Your task to perform on an android device: all mails in gmail Image 0: 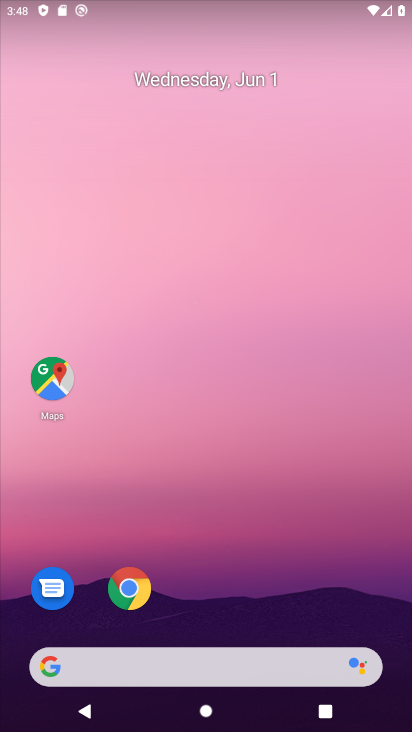
Step 0: drag from (259, 591) to (260, 150)
Your task to perform on an android device: all mails in gmail Image 1: 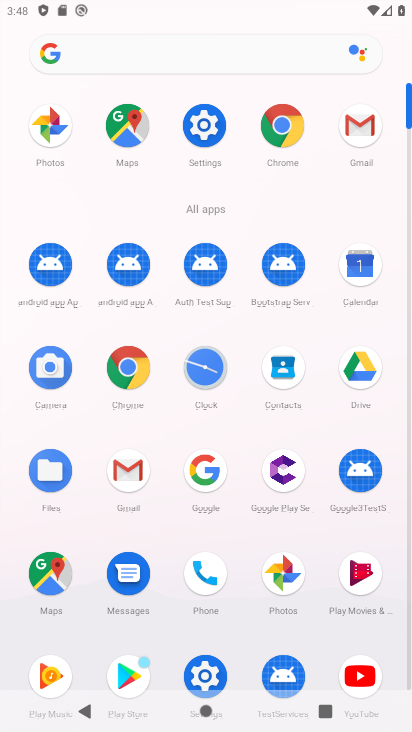
Step 1: click (371, 146)
Your task to perform on an android device: all mails in gmail Image 2: 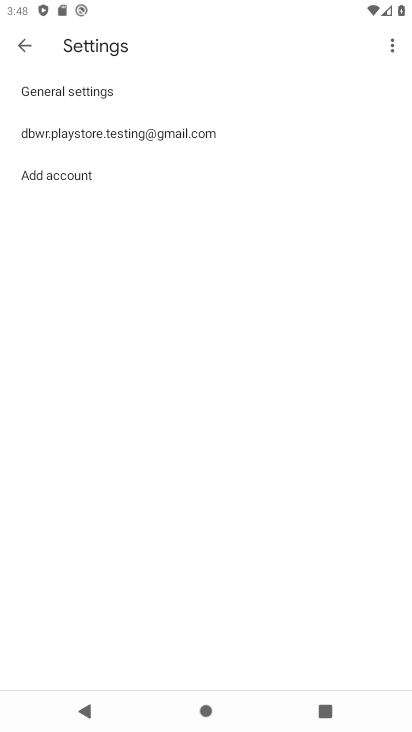
Step 2: click (30, 35)
Your task to perform on an android device: all mails in gmail Image 3: 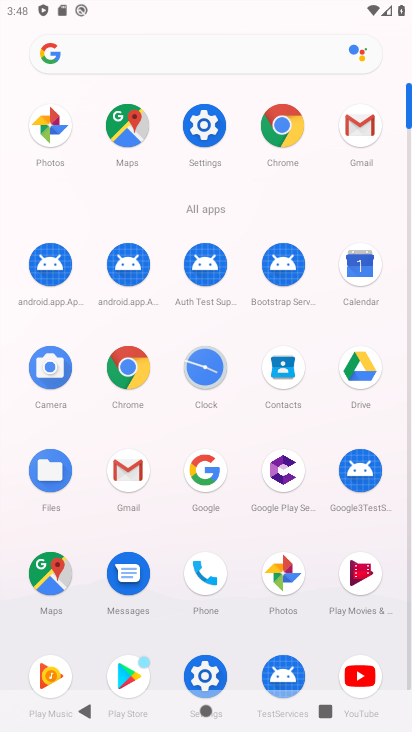
Step 3: click (344, 126)
Your task to perform on an android device: all mails in gmail Image 4: 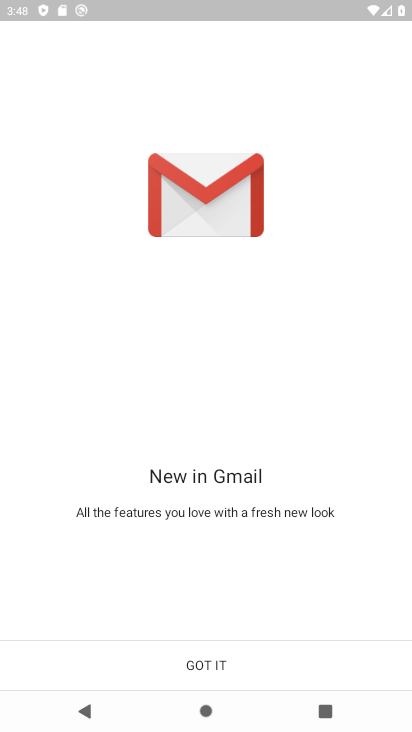
Step 4: click (209, 663)
Your task to perform on an android device: all mails in gmail Image 5: 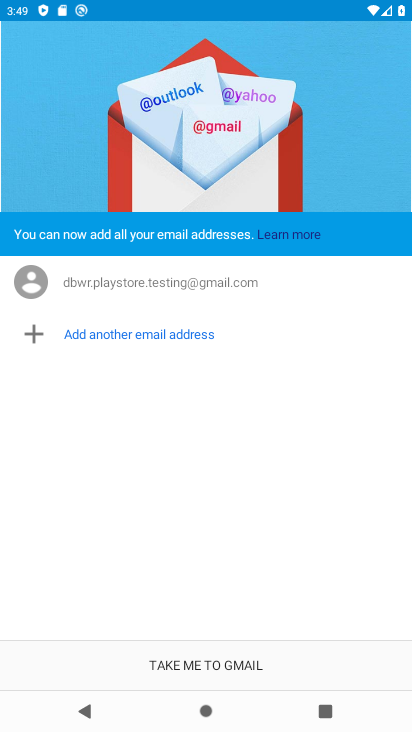
Step 5: click (214, 663)
Your task to perform on an android device: all mails in gmail Image 6: 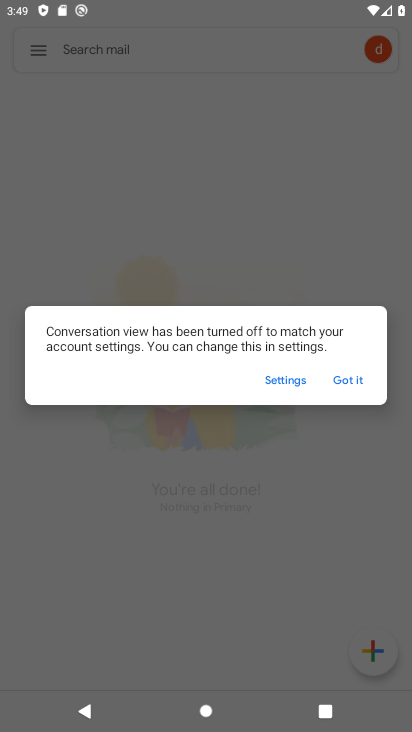
Step 6: click (358, 379)
Your task to perform on an android device: all mails in gmail Image 7: 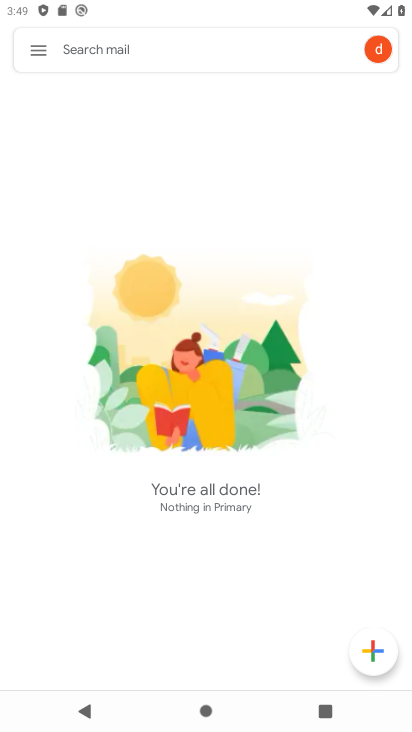
Step 7: click (34, 56)
Your task to perform on an android device: all mails in gmail Image 8: 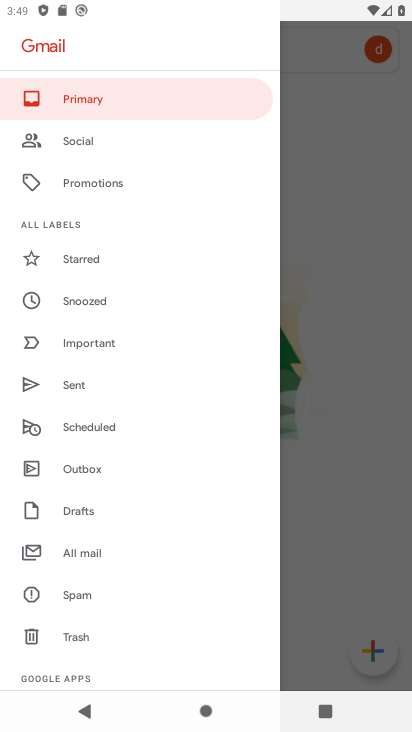
Step 8: click (108, 549)
Your task to perform on an android device: all mails in gmail Image 9: 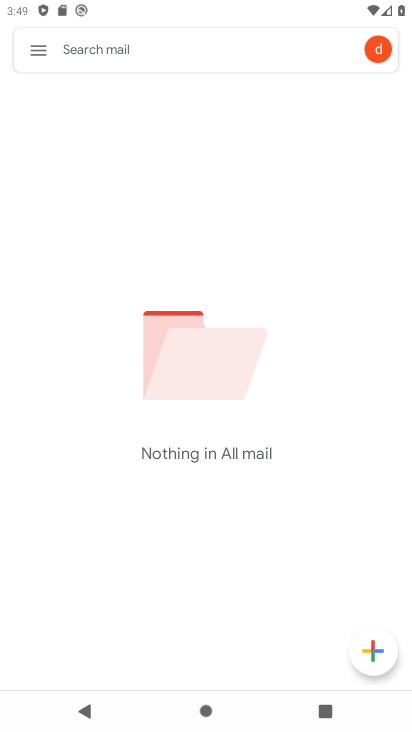
Step 9: task complete